Your task to perform on an android device: all mails in gmail Image 0: 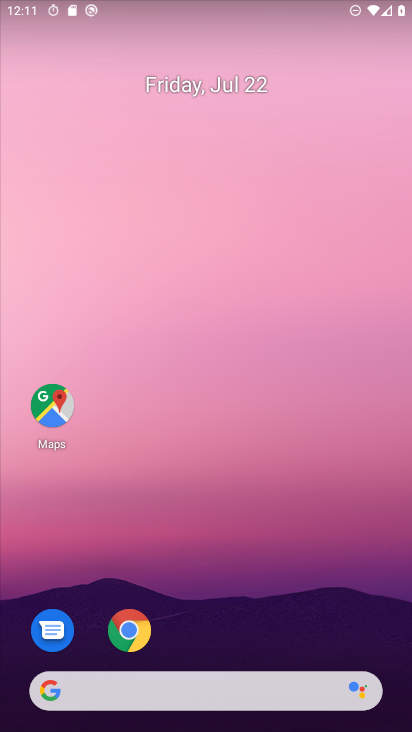
Step 0: press home button
Your task to perform on an android device: all mails in gmail Image 1: 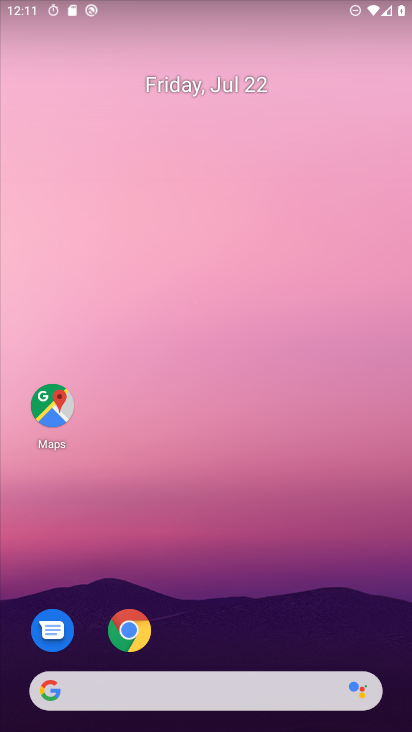
Step 1: drag from (282, 608) to (310, 89)
Your task to perform on an android device: all mails in gmail Image 2: 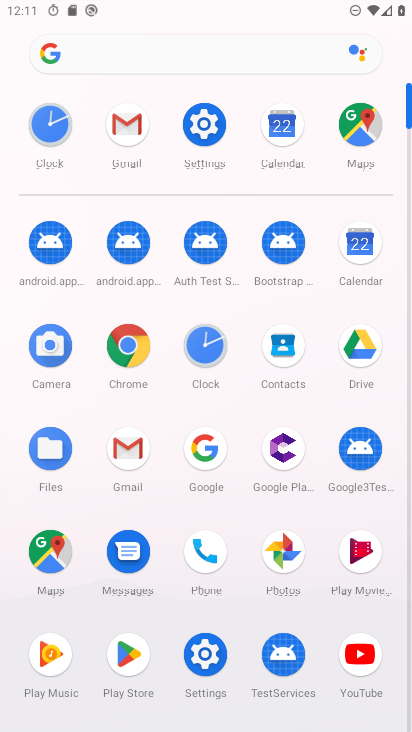
Step 2: click (132, 127)
Your task to perform on an android device: all mails in gmail Image 3: 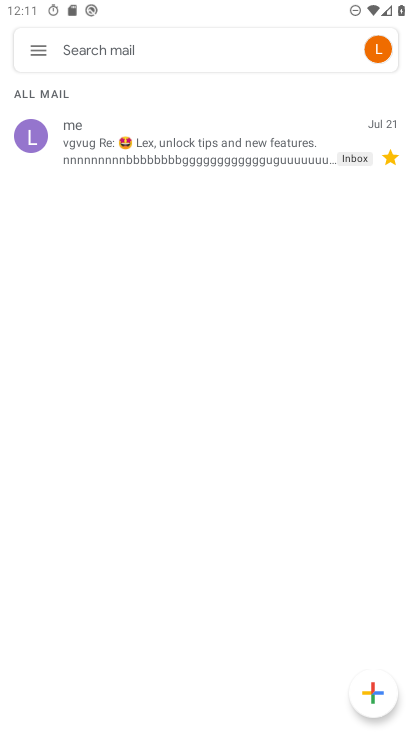
Step 3: click (42, 53)
Your task to perform on an android device: all mails in gmail Image 4: 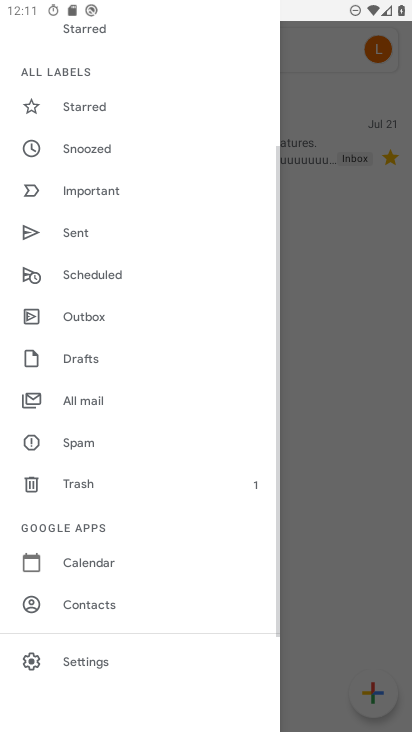
Step 4: click (92, 396)
Your task to perform on an android device: all mails in gmail Image 5: 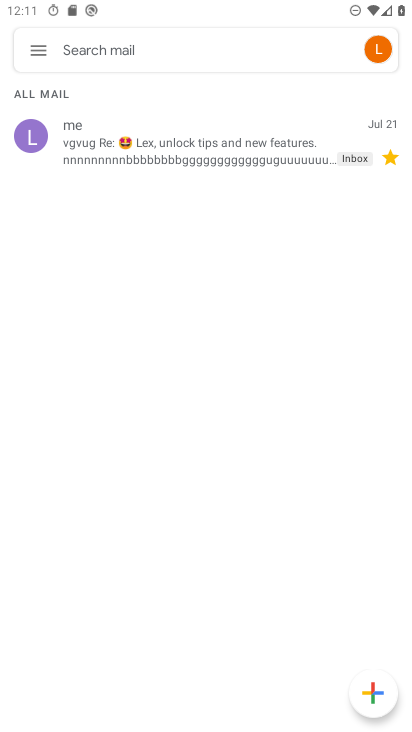
Step 5: task complete